Your task to perform on an android device: Go to battery settings Image 0: 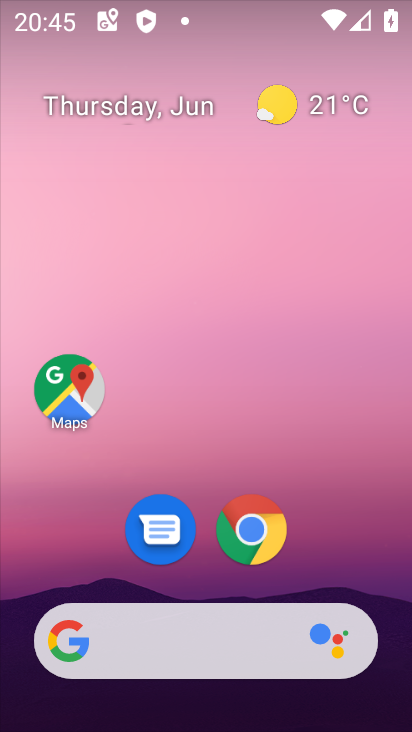
Step 0: drag from (323, 505) to (204, 4)
Your task to perform on an android device: Go to battery settings Image 1: 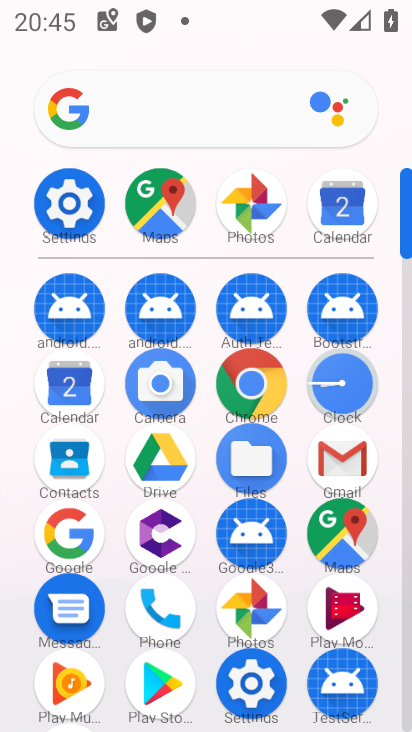
Step 1: click (74, 247)
Your task to perform on an android device: Go to battery settings Image 2: 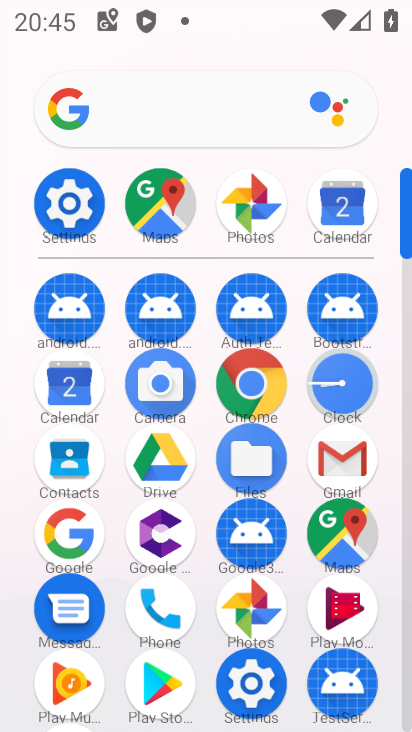
Step 2: click (64, 197)
Your task to perform on an android device: Go to battery settings Image 3: 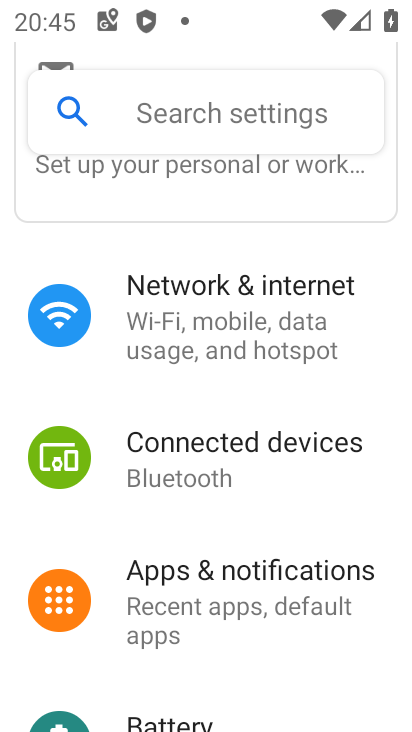
Step 3: click (144, 722)
Your task to perform on an android device: Go to battery settings Image 4: 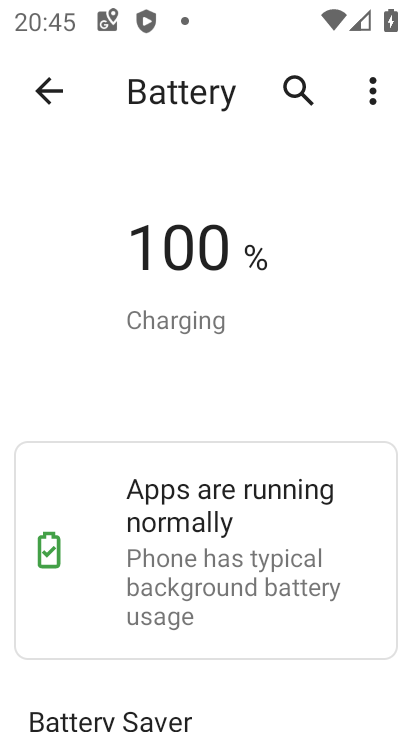
Step 4: task complete